Your task to perform on an android device: Search for the best websites on the internet Image 0: 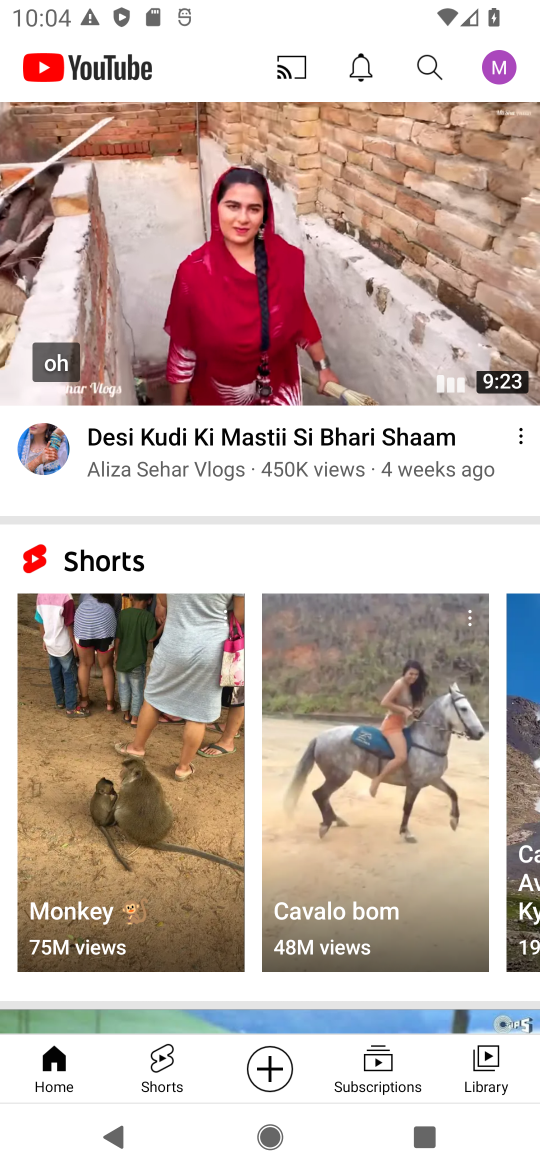
Step 0: press home button
Your task to perform on an android device: Search for the best websites on the internet Image 1: 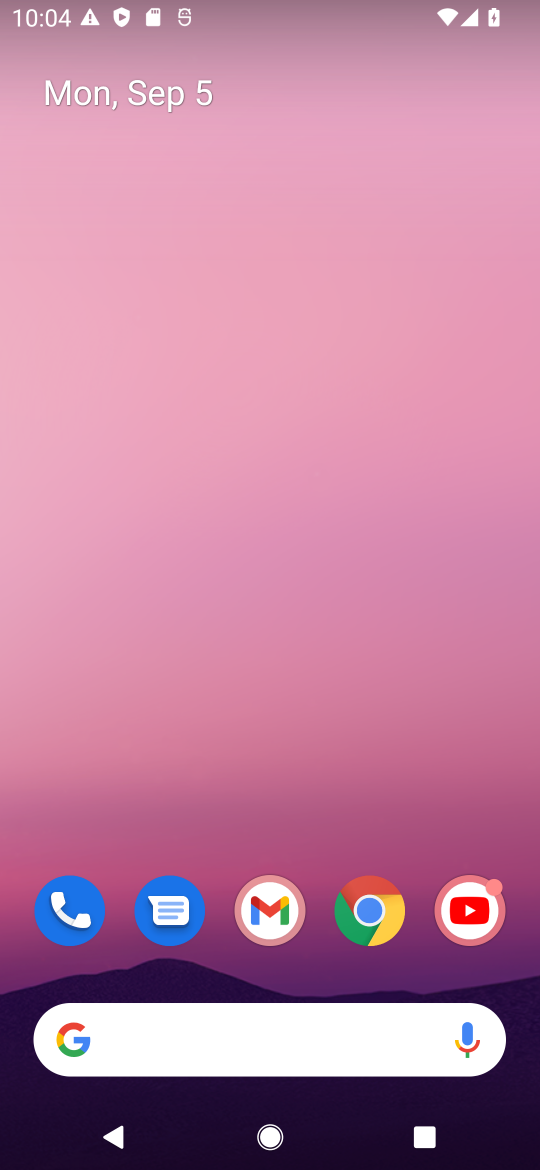
Step 1: click (379, 891)
Your task to perform on an android device: Search for the best websites on the internet Image 2: 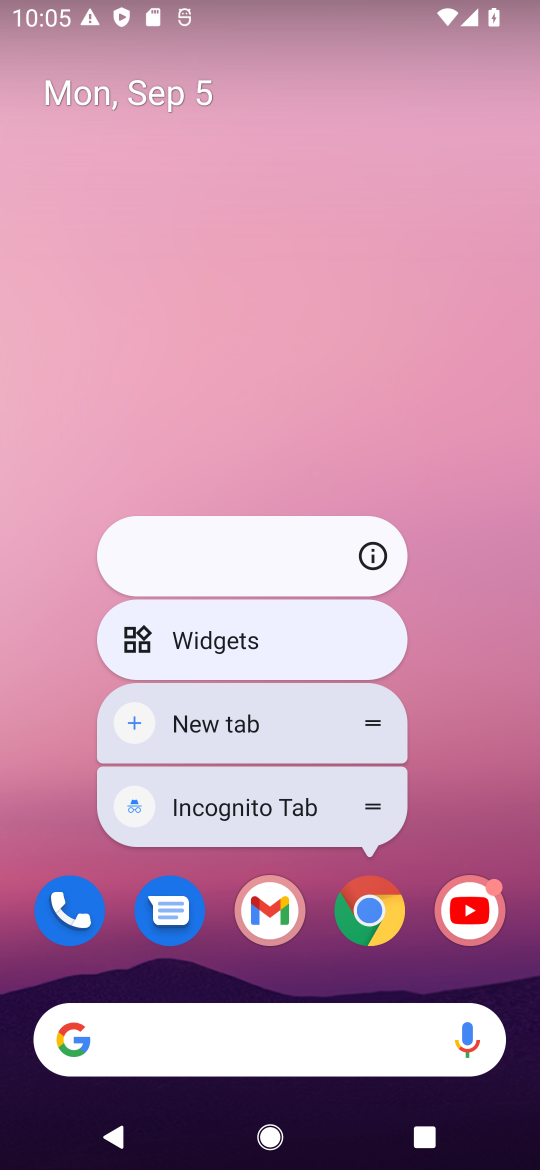
Step 2: click (379, 891)
Your task to perform on an android device: Search for the best websites on the internet Image 3: 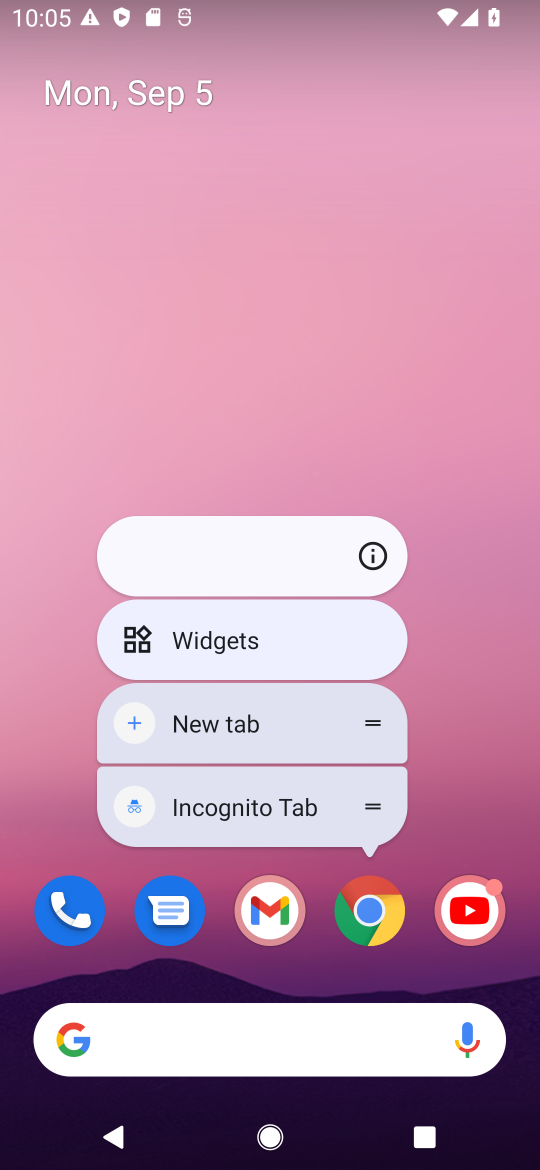
Step 3: click (387, 921)
Your task to perform on an android device: Search for the best websites on the internet Image 4: 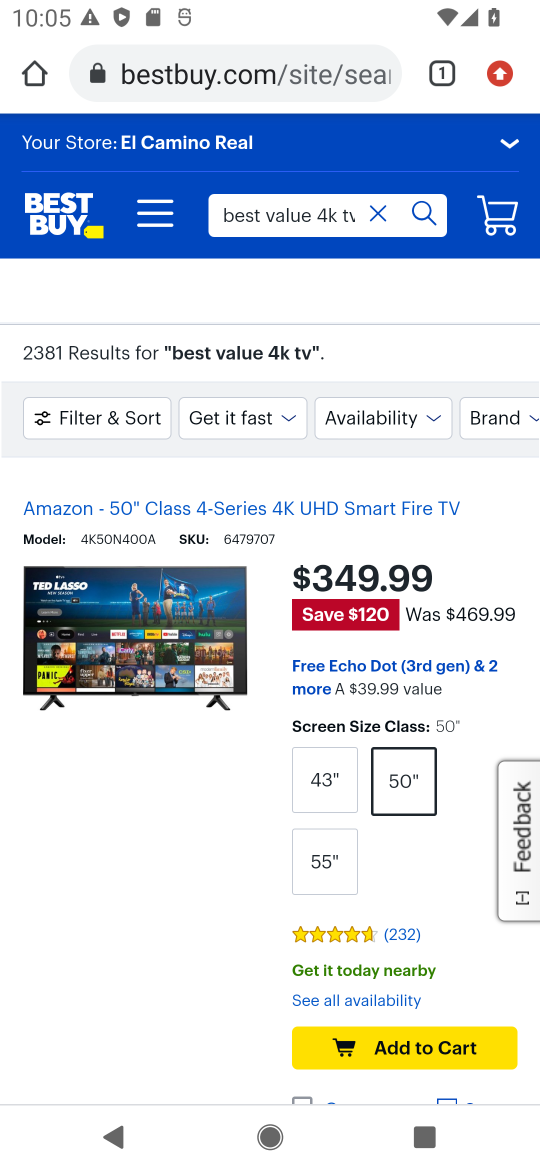
Step 4: click (256, 71)
Your task to perform on an android device: Search for the best websites on the internet Image 5: 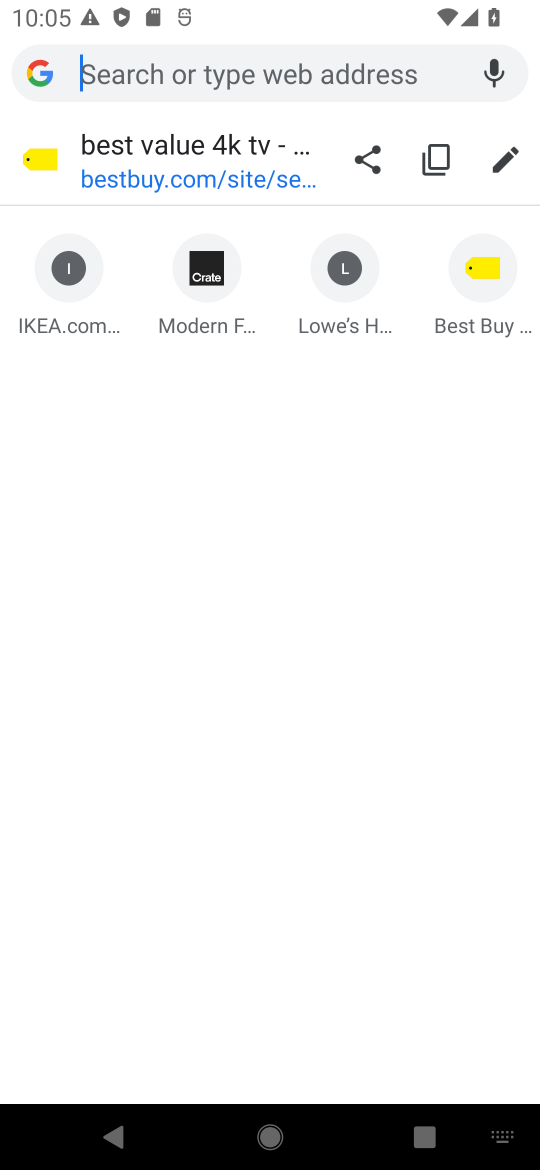
Step 5: type "best websites on the internet"
Your task to perform on an android device: Search for the best websites on the internet Image 6: 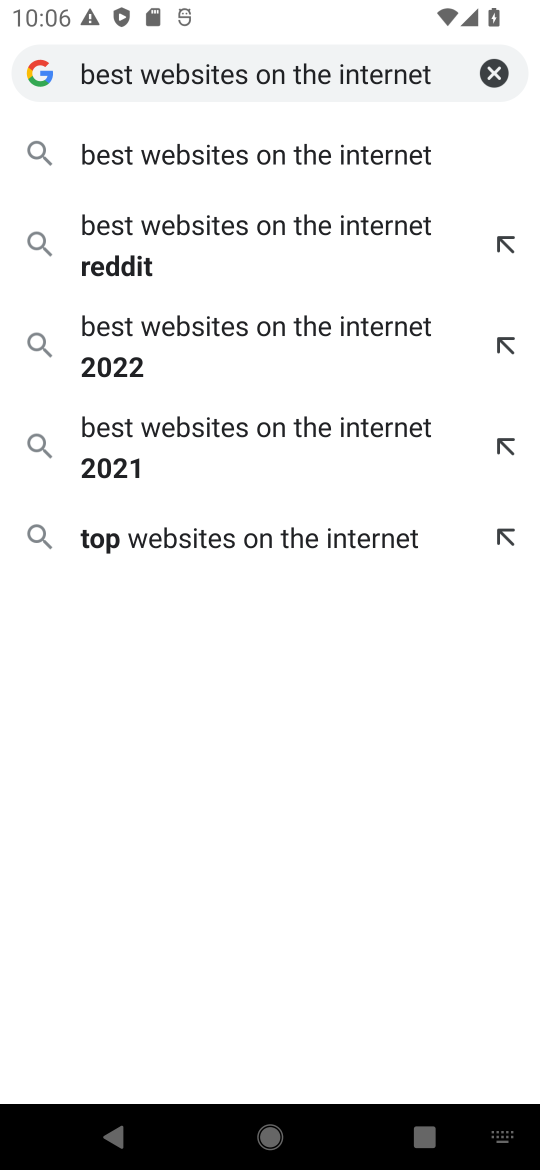
Step 6: click (351, 166)
Your task to perform on an android device: Search for the best websites on the internet Image 7: 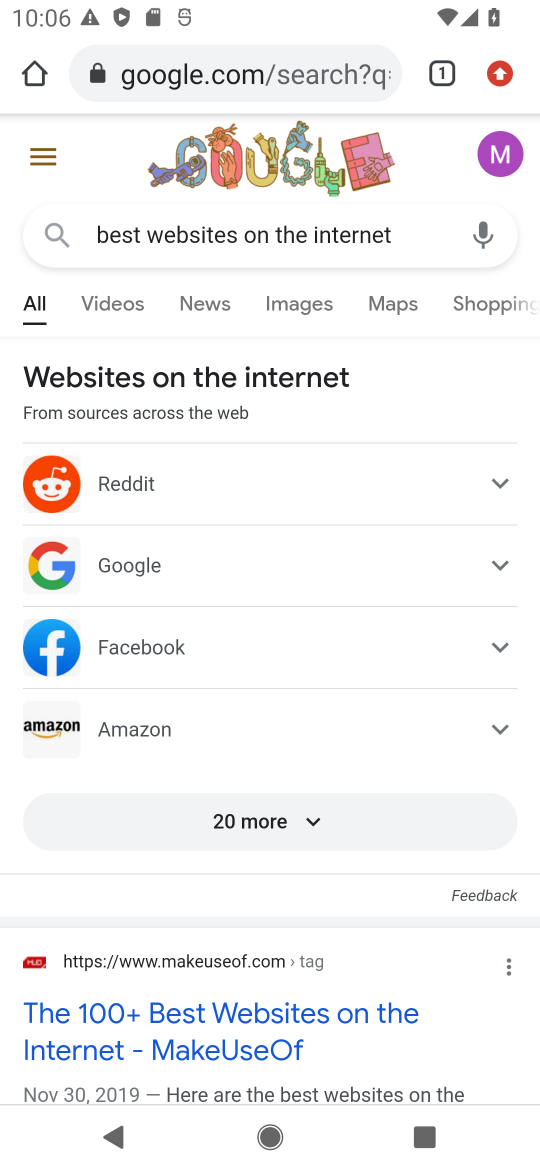
Step 7: task complete